Your task to perform on an android device: see tabs open on other devices in the chrome app Image 0: 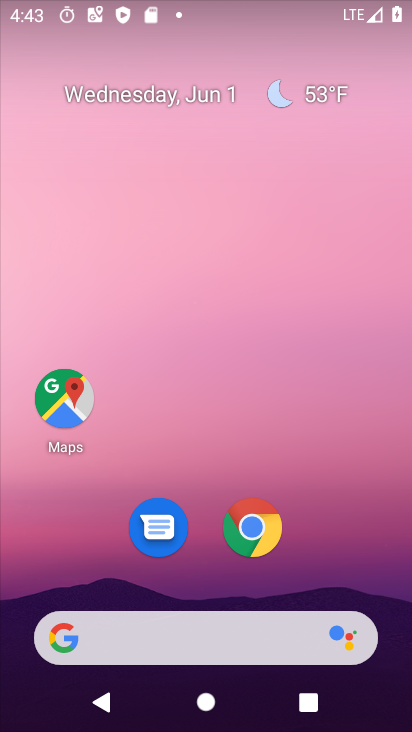
Step 0: drag from (334, 551) to (352, 97)
Your task to perform on an android device: see tabs open on other devices in the chrome app Image 1: 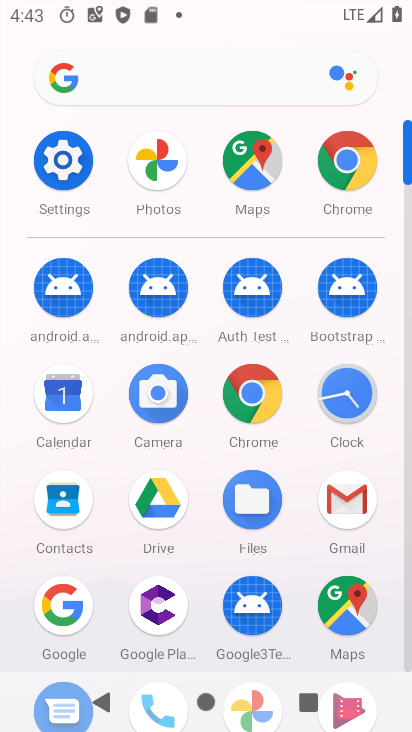
Step 1: click (248, 390)
Your task to perform on an android device: see tabs open on other devices in the chrome app Image 2: 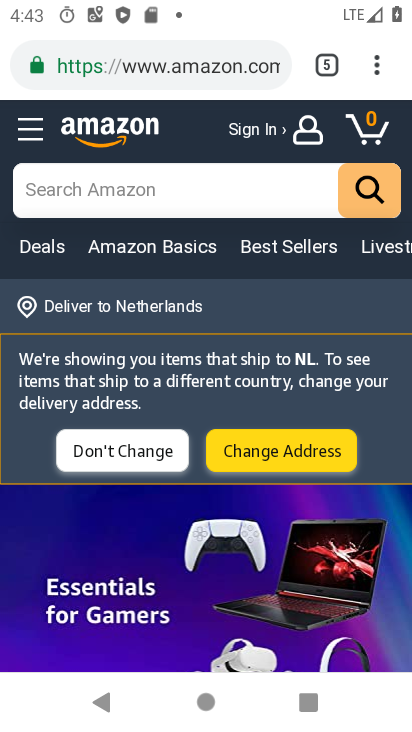
Step 2: task complete